Your task to perform on an android device: toggle data saver in the chrome app Image 0: 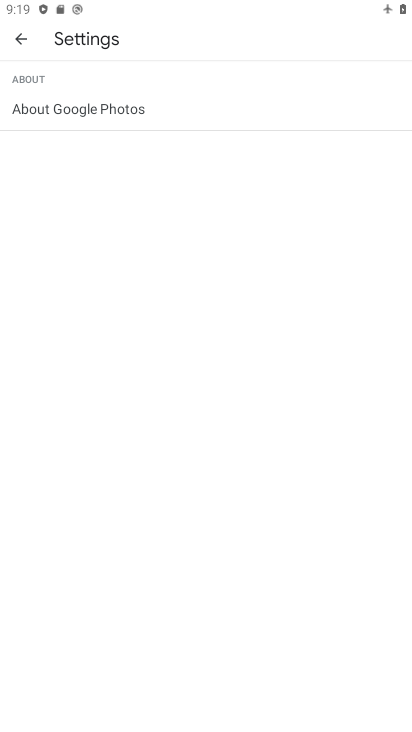
Step 0: press home button
Your task to perform on an android device: toggle data saver in the chrome app Image 1: 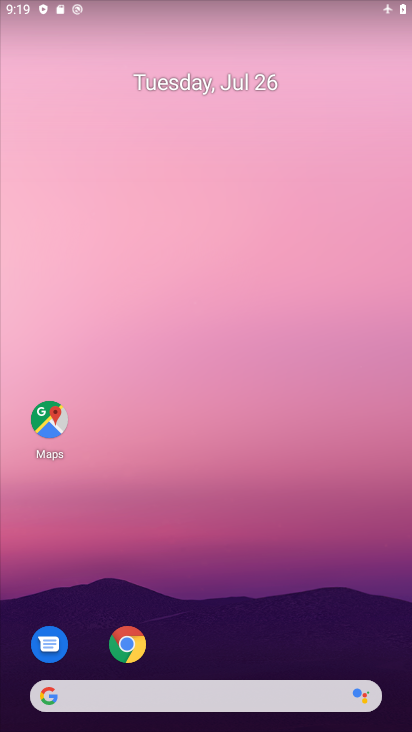
Step 1: drag from (245, 650) to (264, 45)
Your task to perform on an android device: toggle data saver in the chrome app Image 2: 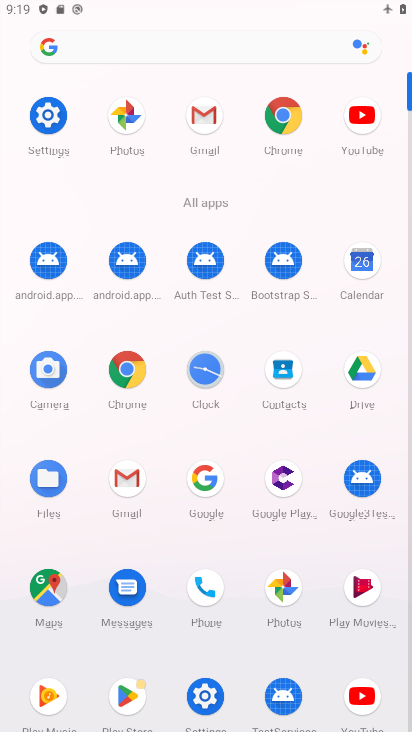
Step 2: click (131, 396)
Your task to perform on an android device: toggle data saver in the chrome app Image 3: 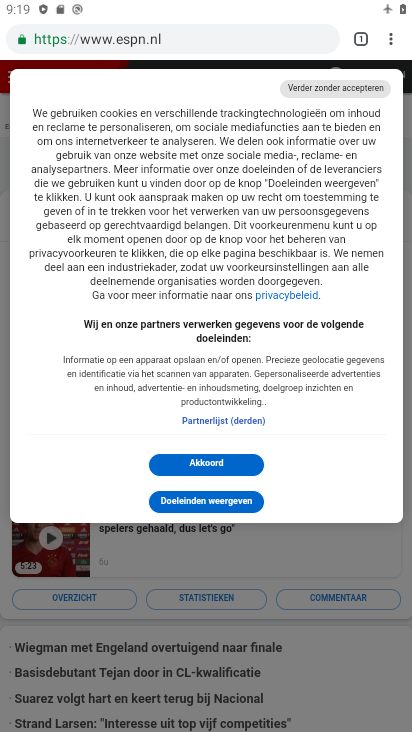
Step 3: click (389, 28)
Your task to perform on an android device: toggle data saver in the chrome app Image 4: 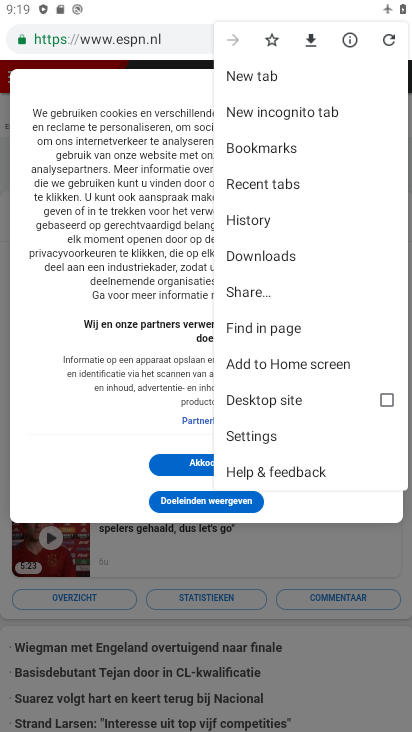
Step 4: click (264, 435)
Your task to perform on an android device: toggle data saver in the chrome app Image 5: 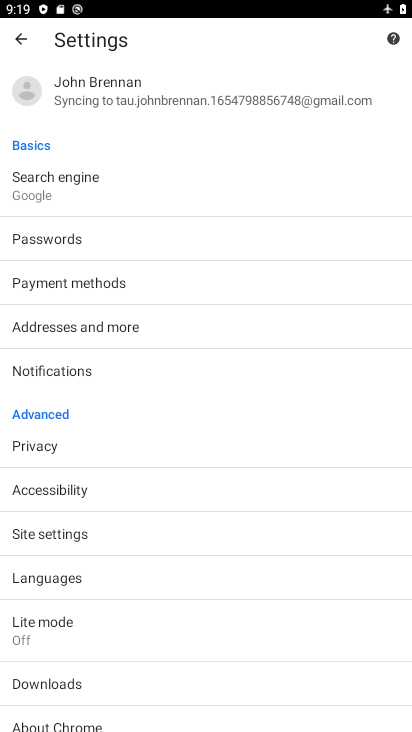
Step 5: click (59, 635)
Your task to perform on an android device: toggle data saver in the chrome app Image 6: 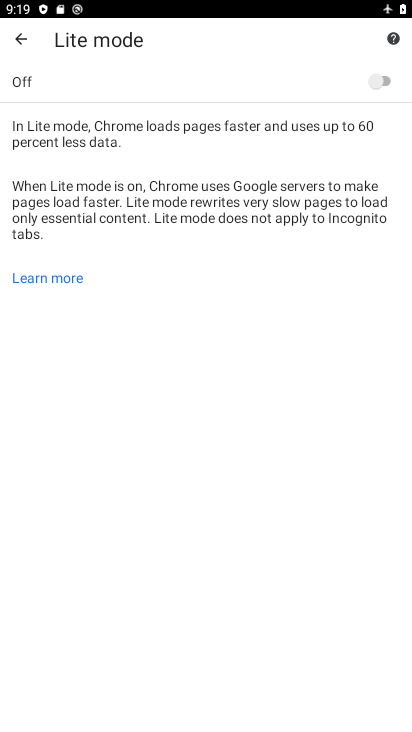
Step 6: click (351, 83)
Your task to perform on an android device: toggle data saver in the chrome app Image 7: 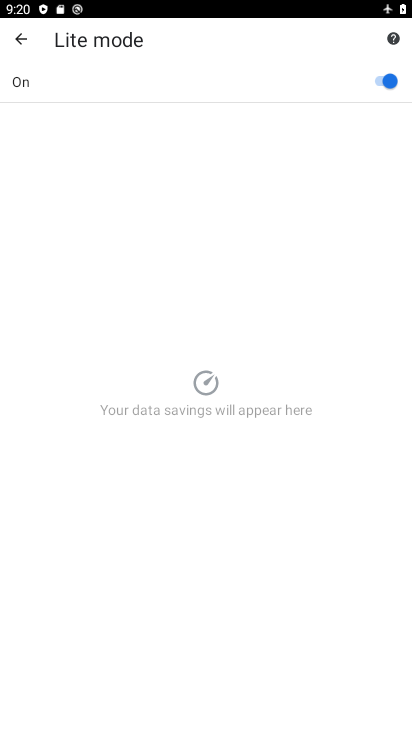
Step 7: task complete